Your task to perform on an android device: Add "razer thresher" to the cart on bestbuy.com, then select checkout. Image 0: 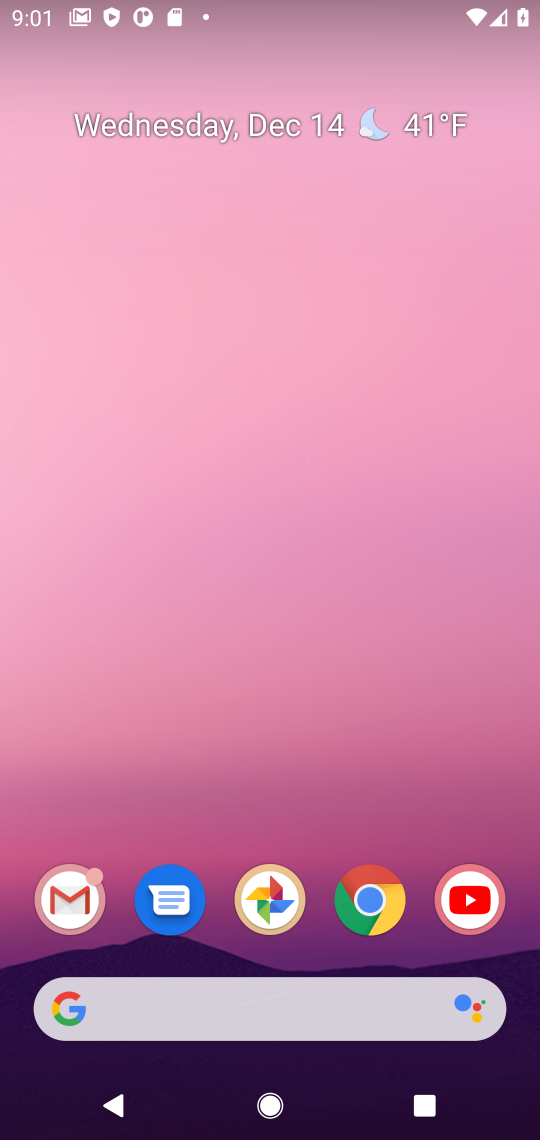
Step 0: click (371, 907)
Your task to perform on an android device: Add "razer thresher" to the cart on bestbuy.com, then select checkout. Image 1: 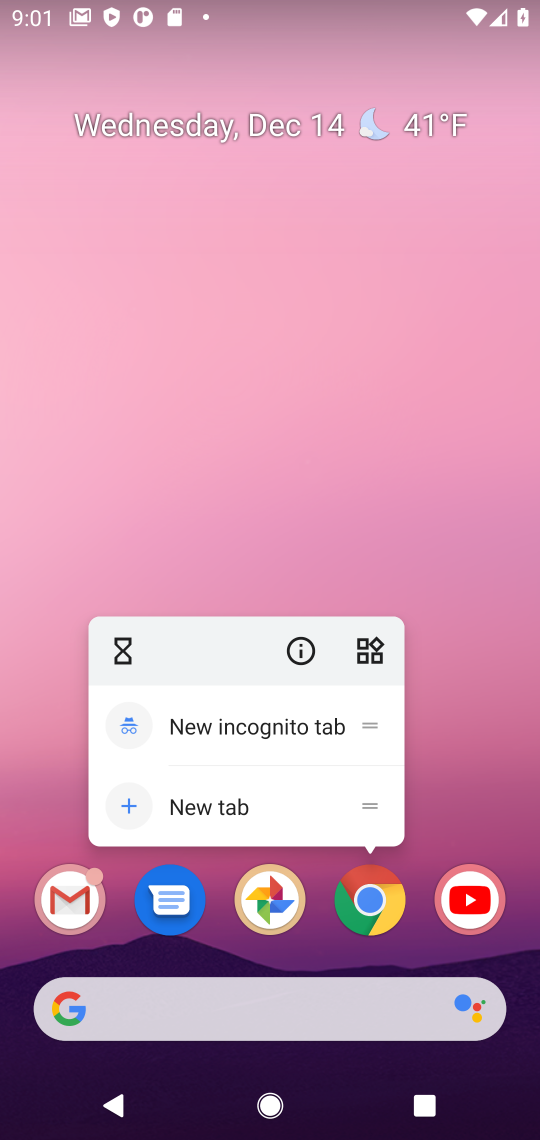
Step 1: click (371, 907)
Your task to perform on an android device: Add "razer thresher" to the cart on bestbuy.com, then select checkout. Image 2: 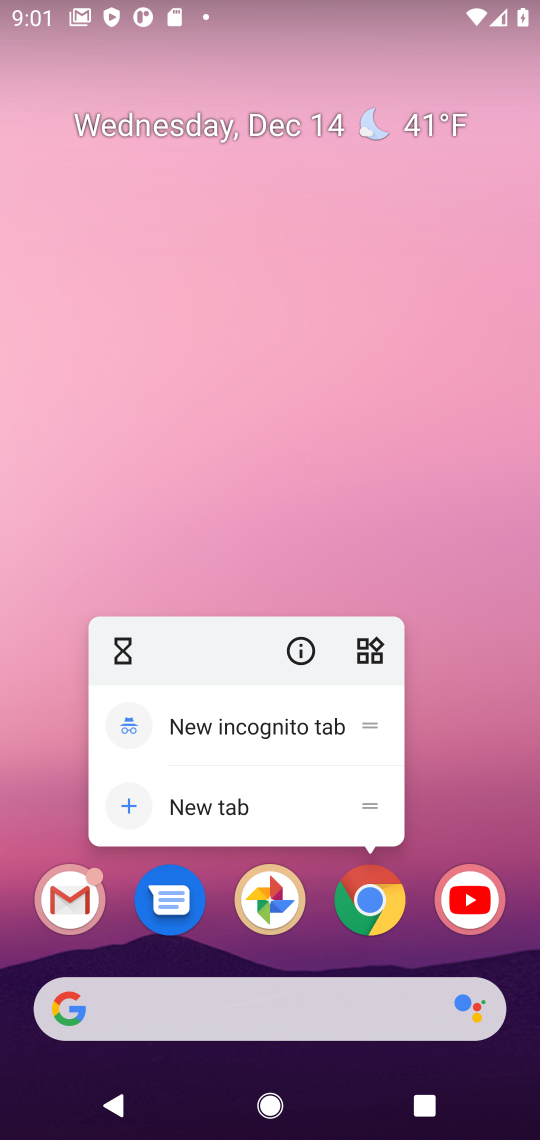
Step 2: click (375, 905)
Your task to perform on an android device: Add "razer thresher" to the cart on bestbuy.com, then select checkout. Image 3: 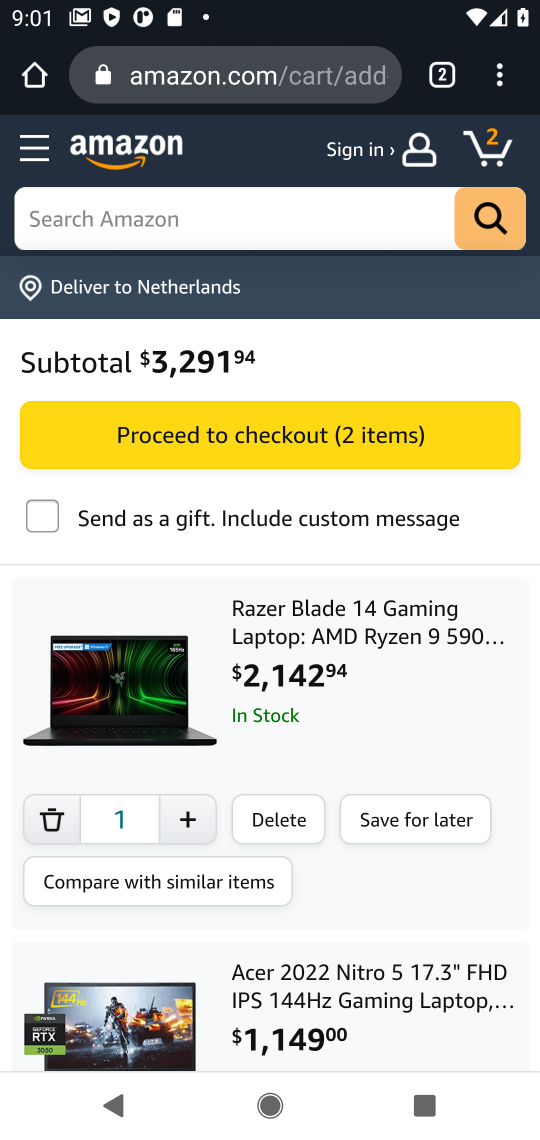
Step 3: click (230, 84)
Your task to perform on an android device: Add "razer thresher" to the cart on bestbuy.com, then select checkout. Image 4: 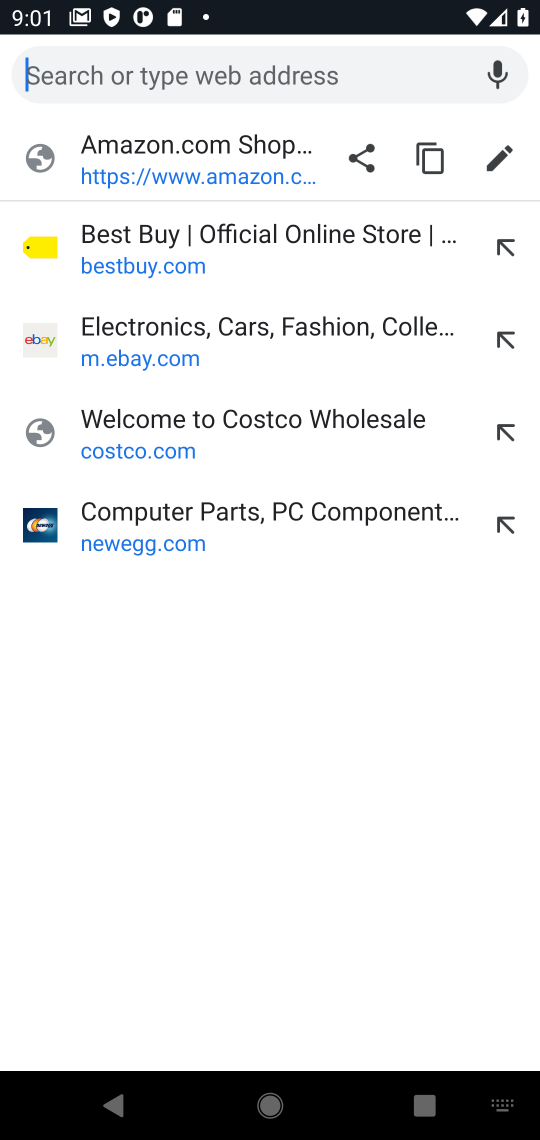
Step 4: click (167, 250)
Your task to perform on an android device: Add "razer thresher" to the cart on bestbuy.com, then select checkout. Image 5: 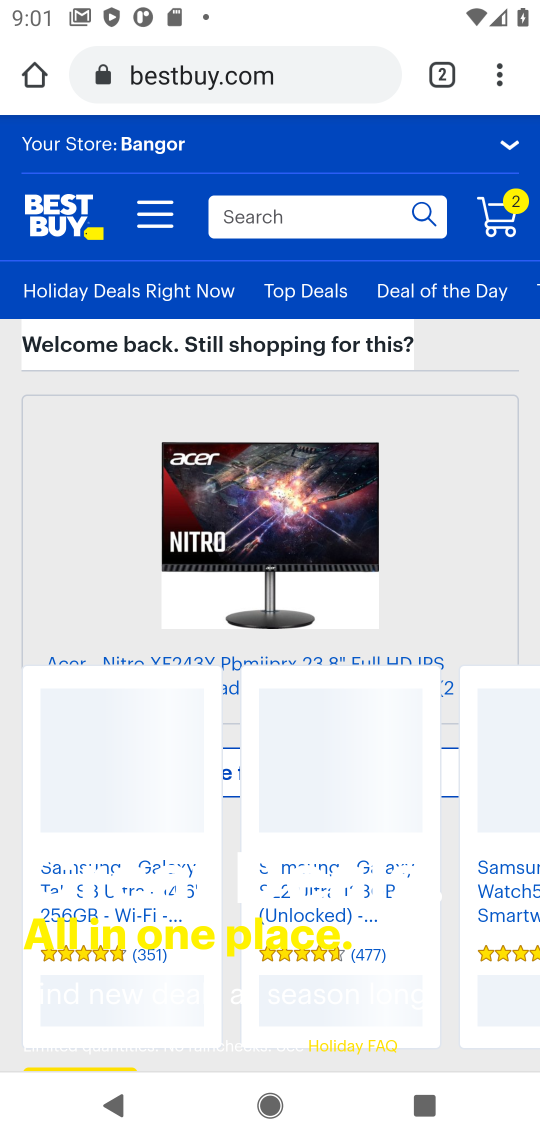
Step 5: click (272, 218)
Your task to perform on an android device: Add "razer thresher" to the cart on bestbuy.com, then select checkout. Image 6: 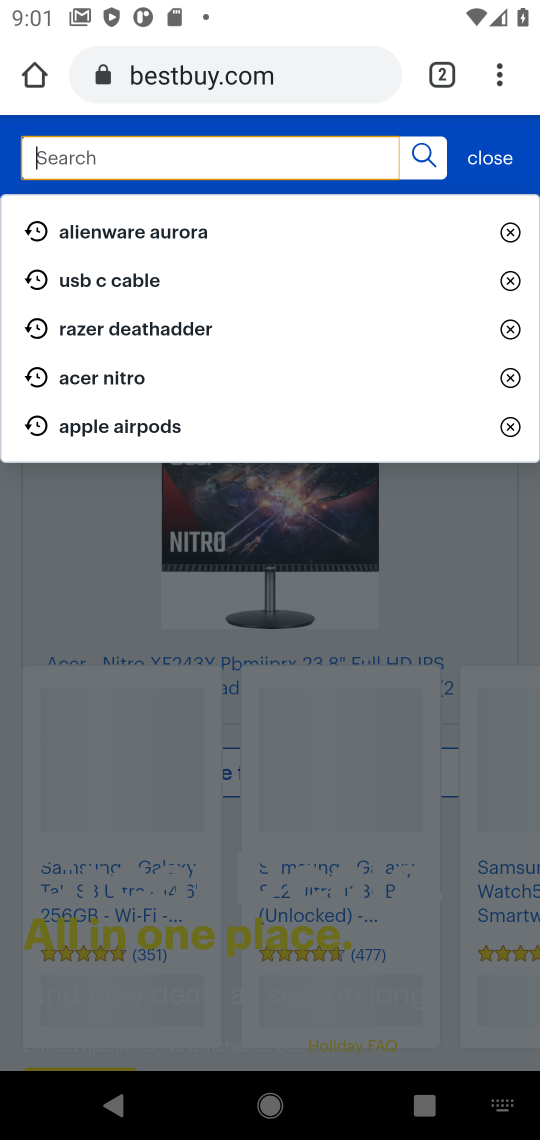
Step 6: type "razer thresher"
Your task to perform on an android device: Add "razer thresher" to the cart on bestbuy.com, then select checkout. Image 7: 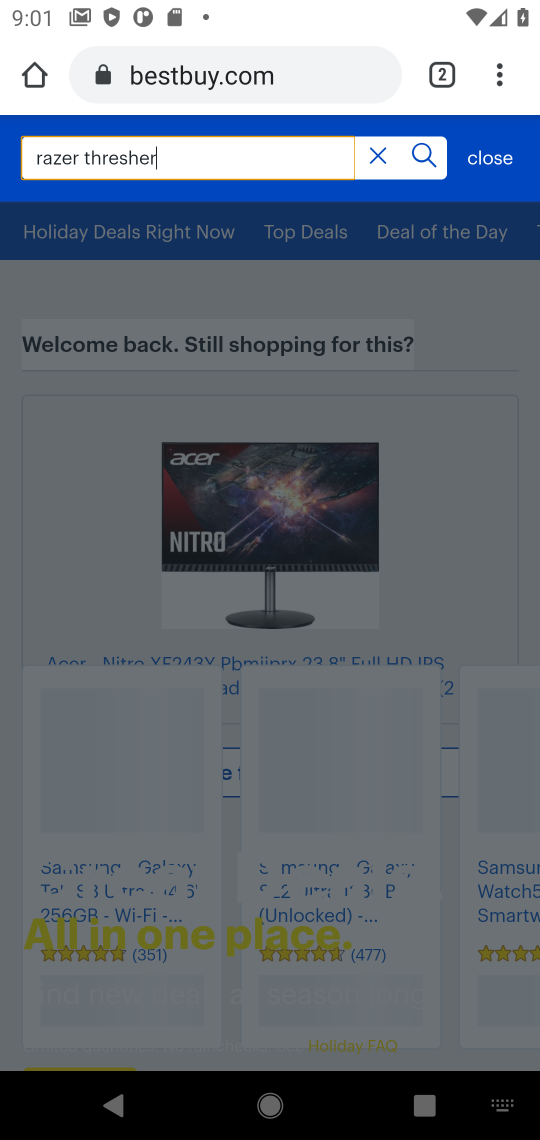
Step 7: click (424, 157)
Your task to perform on an android device: Add "razer thresher" to the cart on bestbuy.com, then select checkout. Image 8: 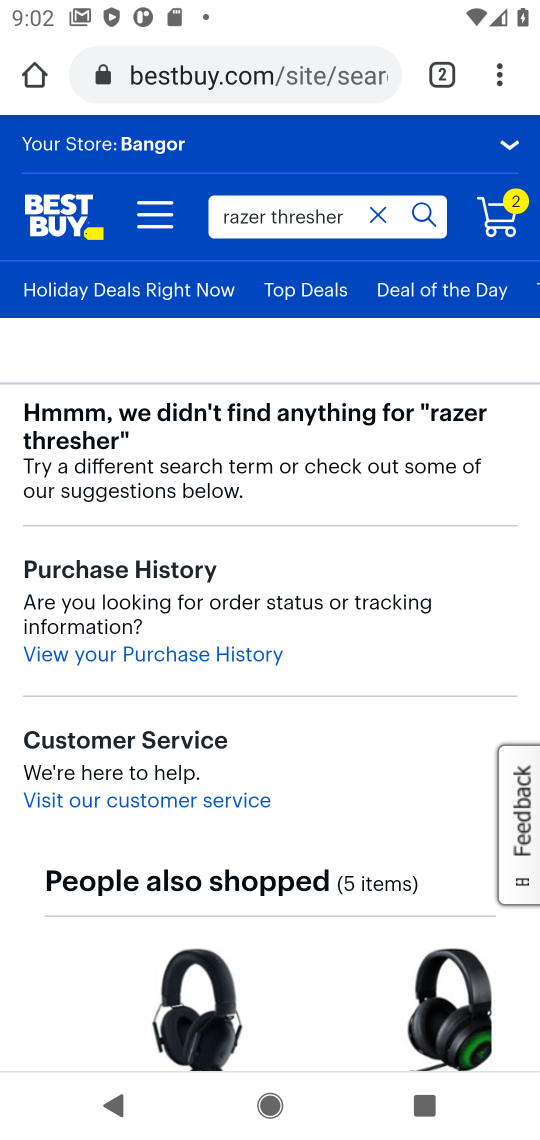
Step 8: task complete